Your task to perform on an android device: turn off airplane mode Image 0: 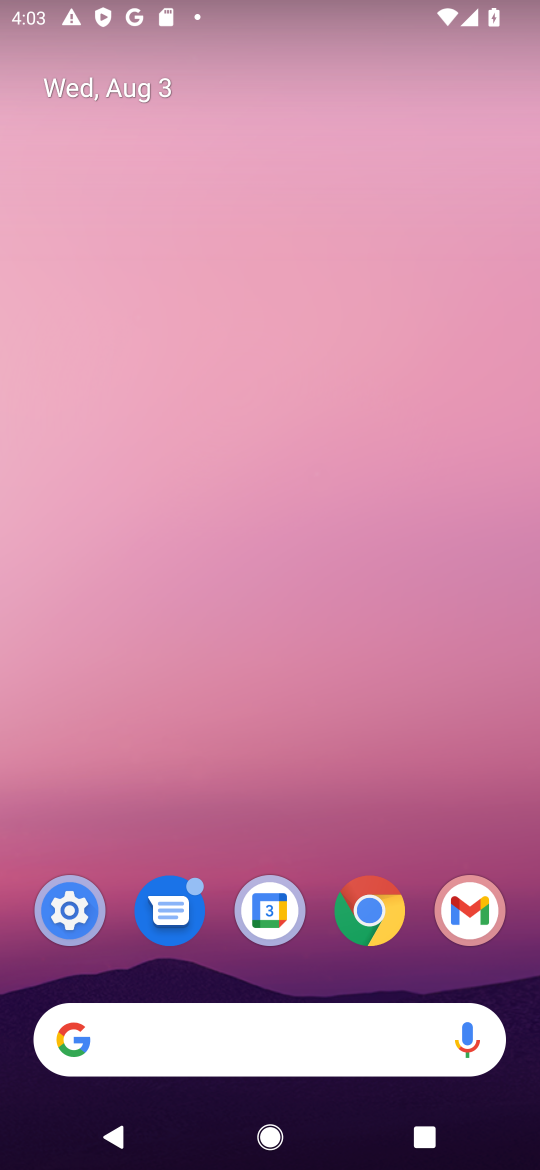
Step 0: drag from (135, 929) to (278, 221)
Your task to perform on an android device: turn off airplane mode Image 1: 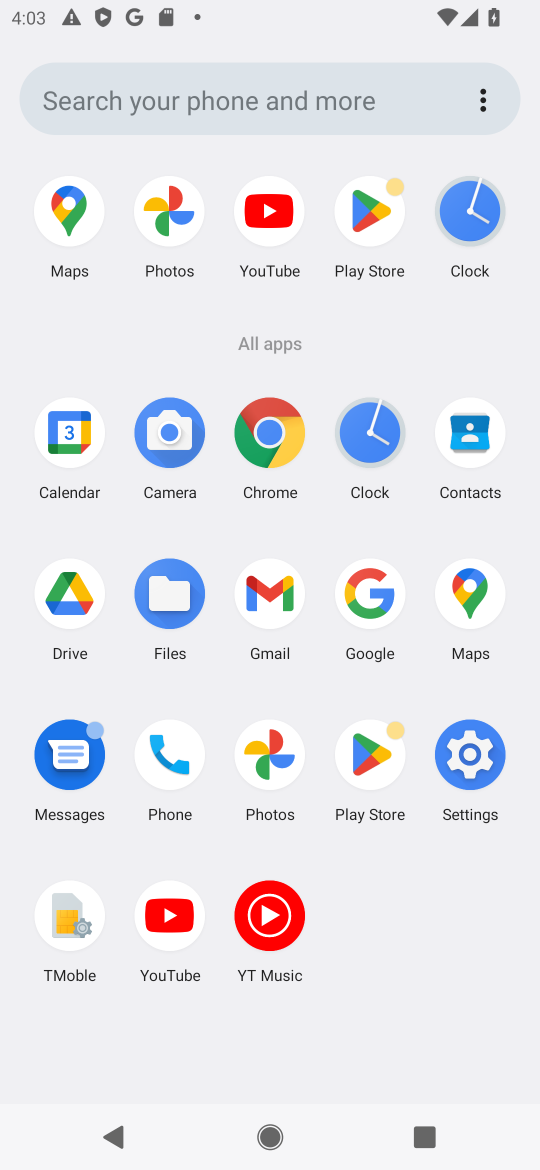
Step 1: click (471, 742)
Your task to perform on an android device: turn off airplane mode Image 2: 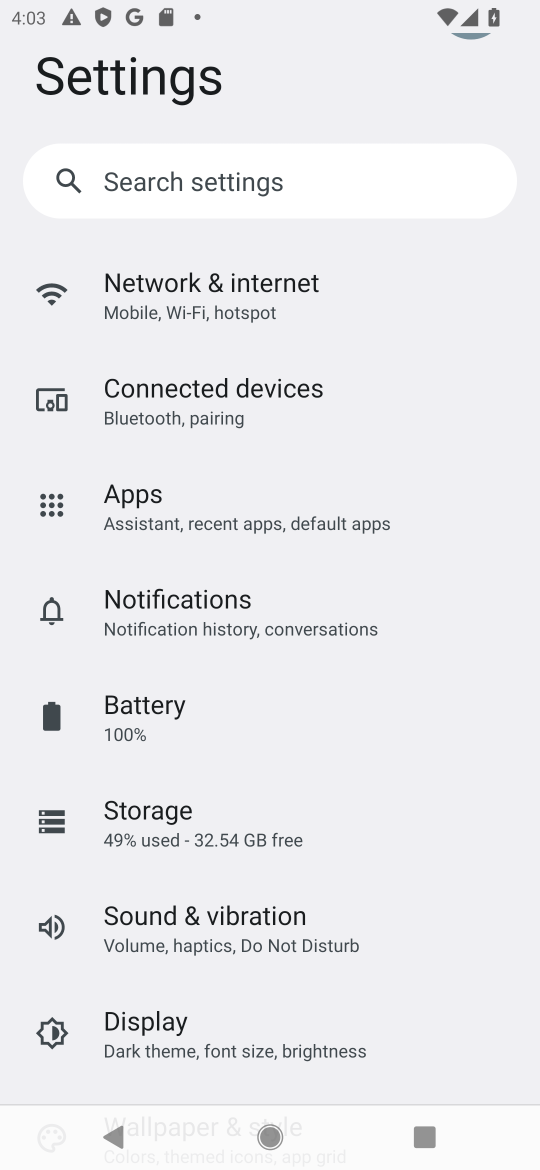
Step 2: click (206, 304)
Your task to perform on an android device: turn off airplane mode Image 3: 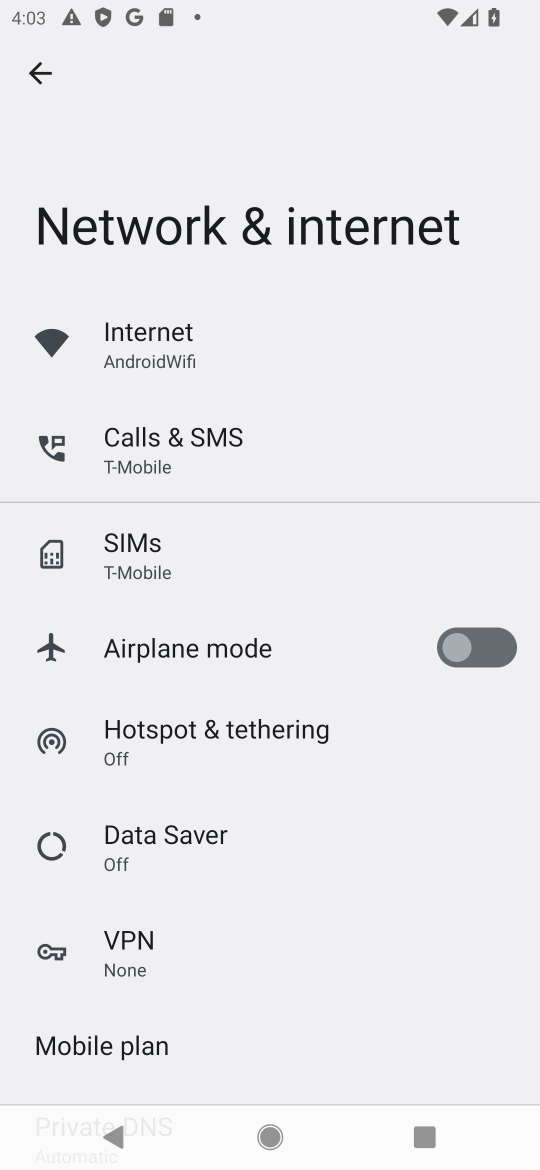
Step 3: task complete